Your task to perform on an android device: turn on showing notifications on the lock screen Image 0: 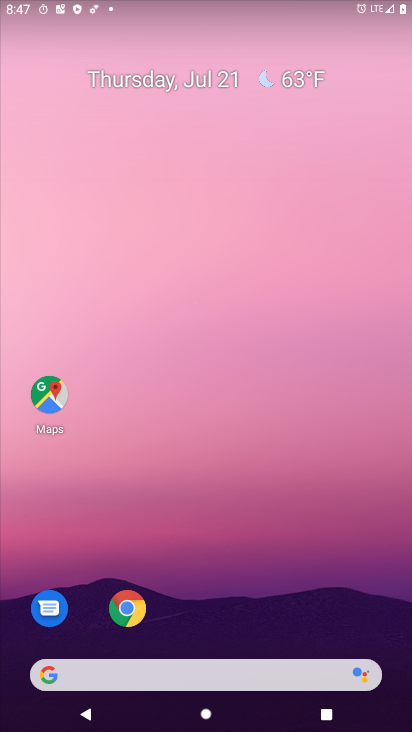
Step 0: press home button
Your task to perform on an android device: turn on showing notifications on the lock screen Image 1: 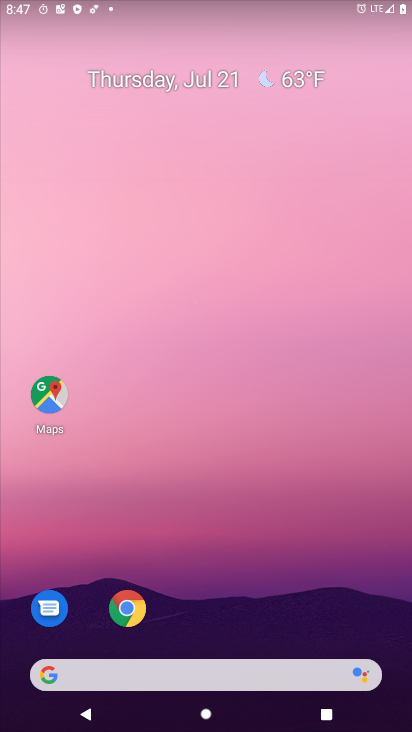
Step 1: drag from (284, 636) to (387, 10)
Your task to perform on an android device: turn on showing notifications on the lock screen Image 2: 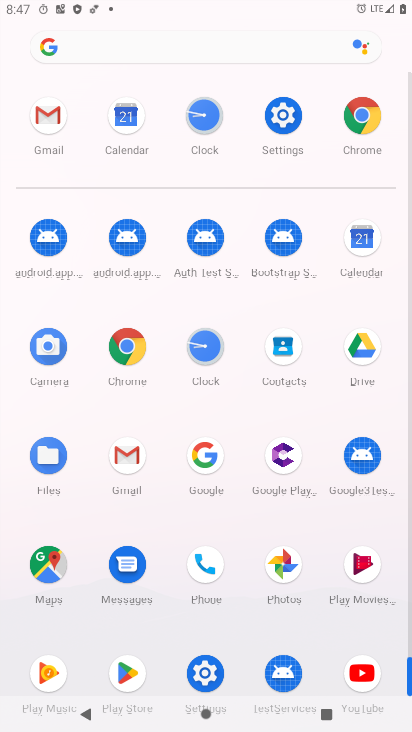
Step 2: click (198, 670)
Your task to perform on an android device: turn on showing notifications on the lock screen Image 3: 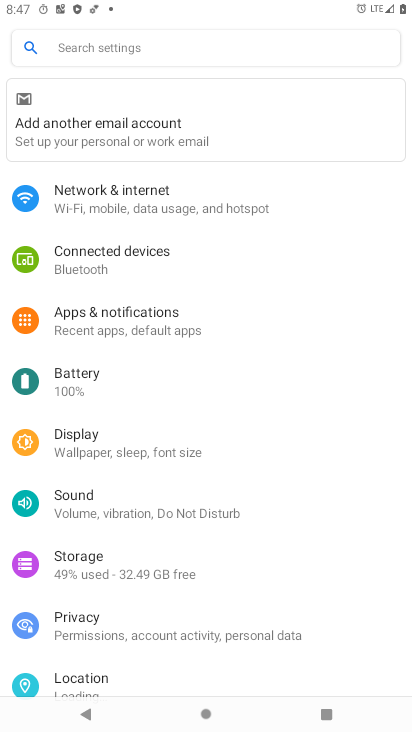
Step 3: click (89, 337)
Your task to perform on an android device: turn on showing notifications on the lock screen Image 4: 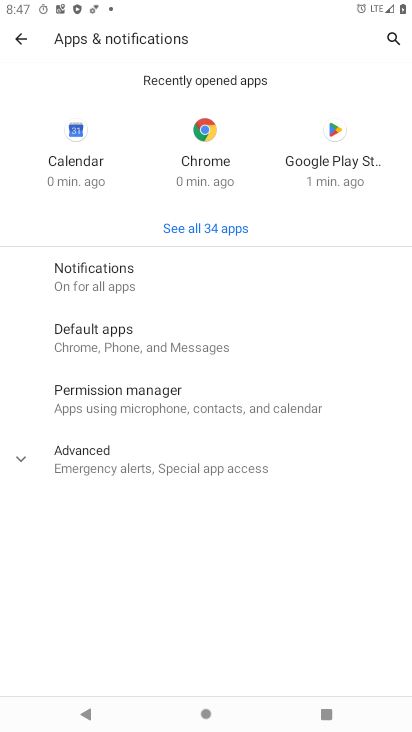
Step 4: click (113, 283)
Your task to perform on an android device: turn on showing notifications on the lock screen Image 5: 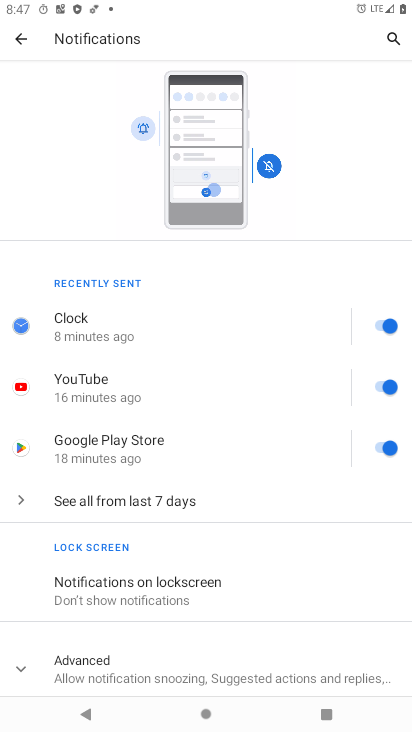
Step 5: click (119, 578)
Your task to perform on an android device: turn on showing notifications on the lock screen Image 6: 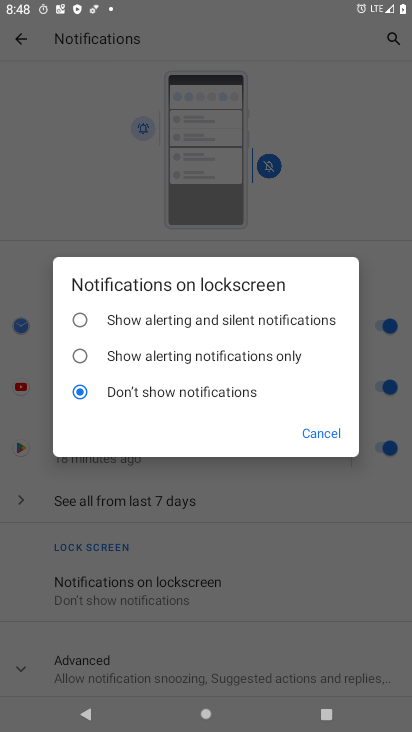
Step 6: click (237, 317)
Your task to perform on an android device: turn on showing notifications on the lock screen Image 7: 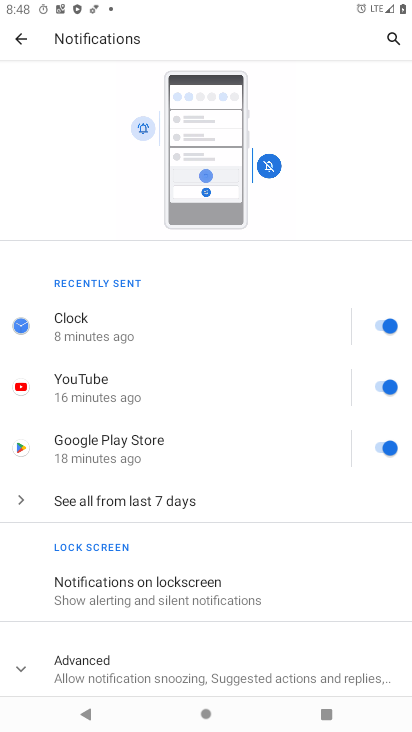
Step 7: task complete